Your task to perform on an android device: Open the map Image 0: 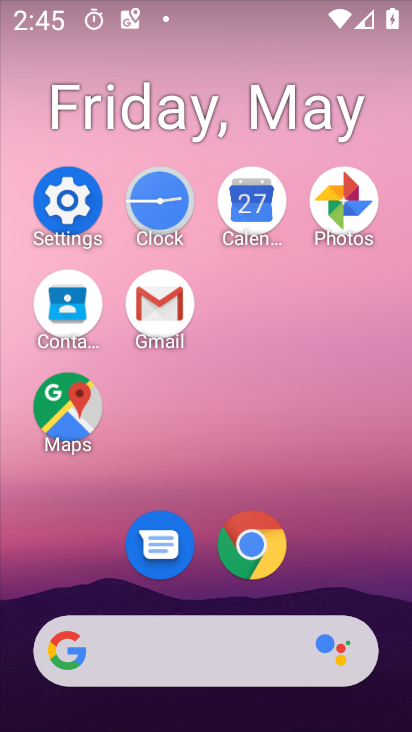
Step 0: click (52, 434)
Your task to perform on an android device: Open the map Image 1: 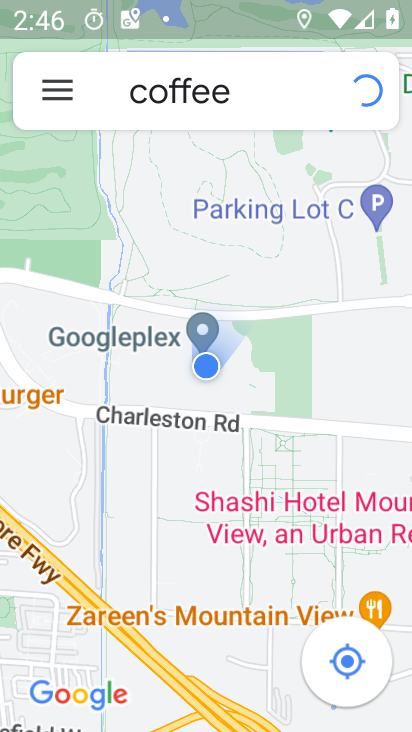
Step 1: task complete